Your task to perform on an android device: delete a single message in the gmail app Image 0: 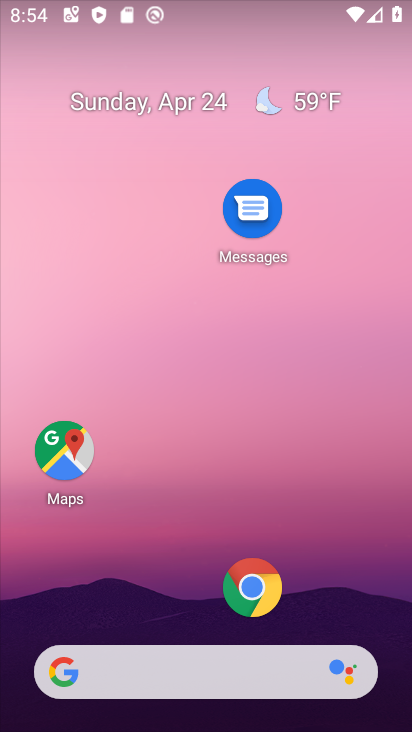
Step 0: drag from (166, 493) to (278, 0)
Your task to perform on an android device: delete a single message in the gmail app Image 1: 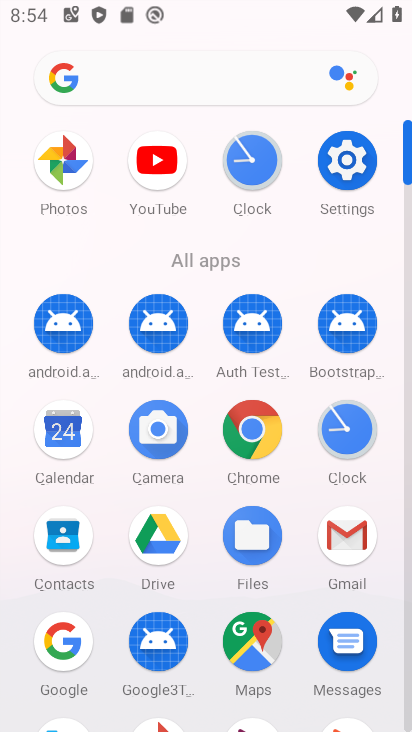
Step 1: click (347, 527)
Your task to perform on an android device: delete a single message in the gmail app Image 2: 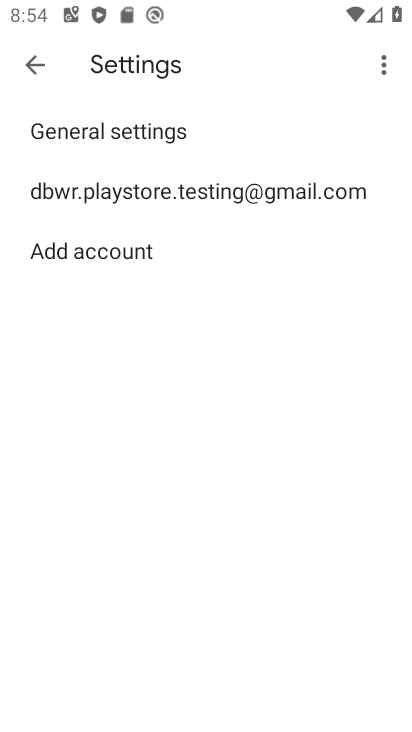
Step 2: click (24, 59)
Your task to perform on an android device: delete a single message in the gmail app Image 3: 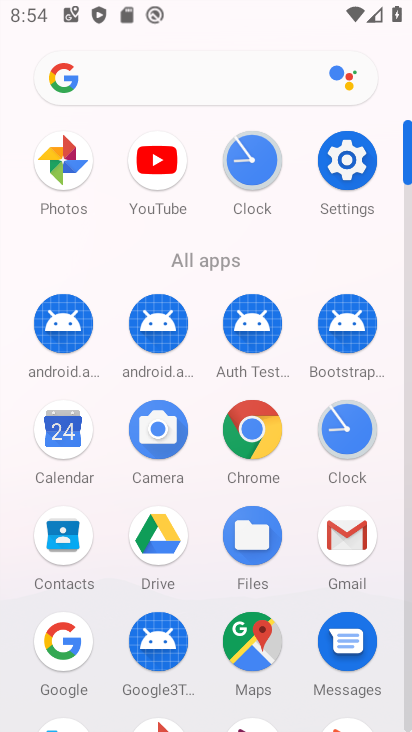
Step 3: click (372, 557)
Your task to perform on an android device: delete a single message in the gmail app Image 4: 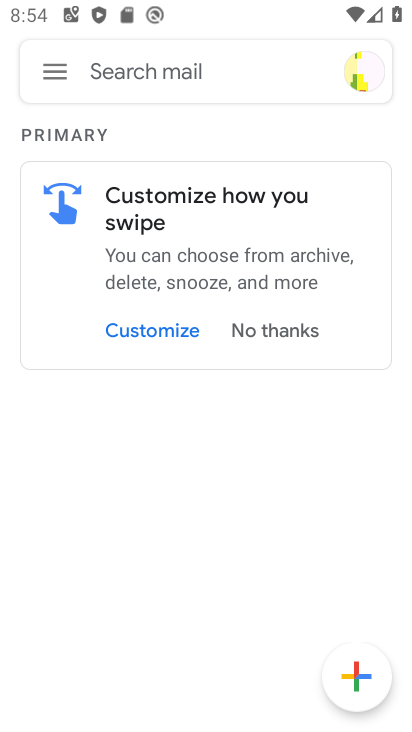
Step 4: click (46, 64)
Your task to perform on an android device: delete a single message in the gmail app Image 5: 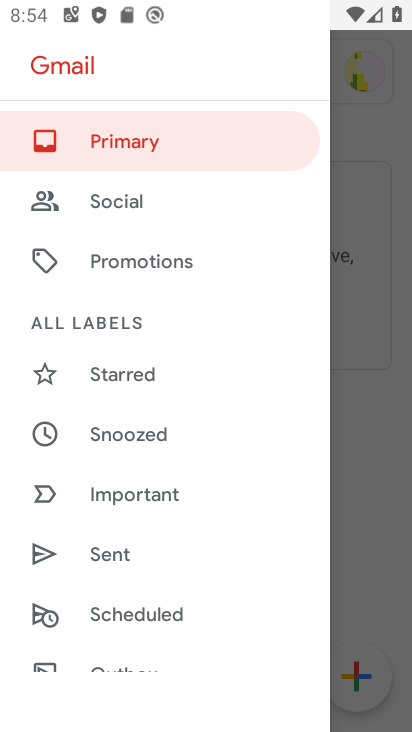
Step 5: drag from (130, 577) to (179, 162)
Your task to perform on an android device: delete a single message in the gmail app Image 6: 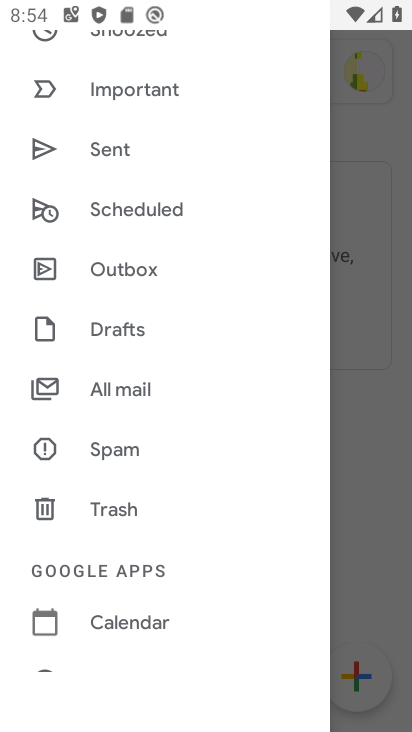
Step 6: click (123, 382)
Your task to perform on an android device: delete a single message in the gmail app Image 7: 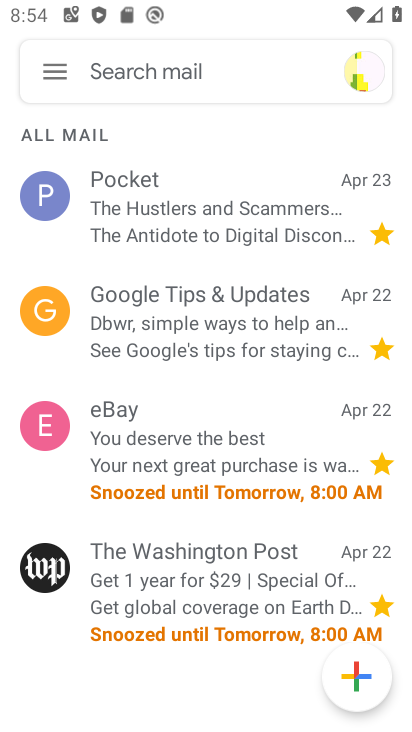
Step 7: click (33, 201)
Your task to perform on an android device: delete a single message in the gmail app Image 8: 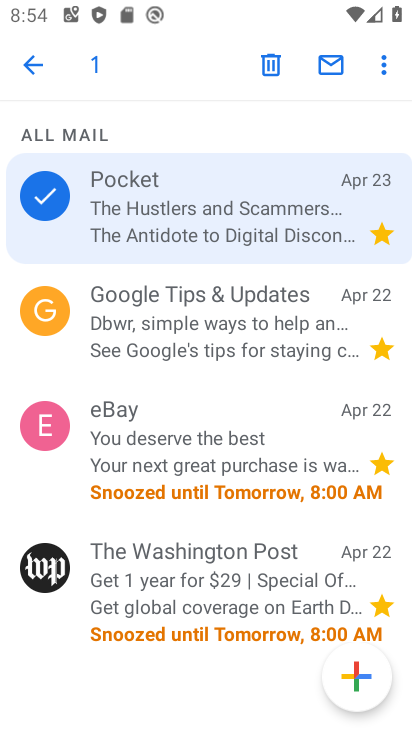
Step 8: click (265, 62)
Your task to perform on an android device: delete a single message in the gmail app Image 9: 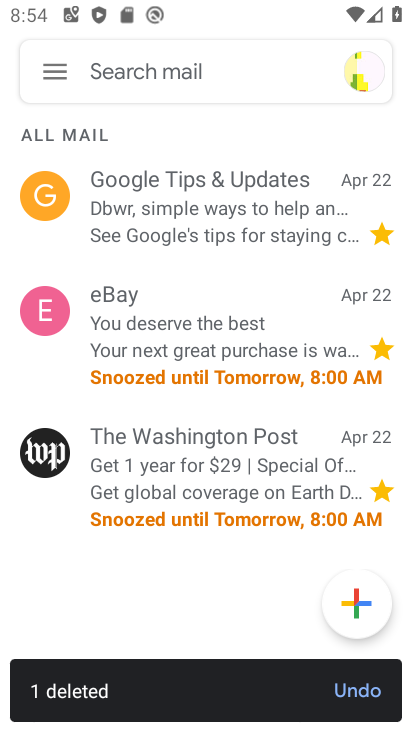
Step 9: task complete